Your task to perform on an android device: make emails show in primary in the gmail app Image 0: 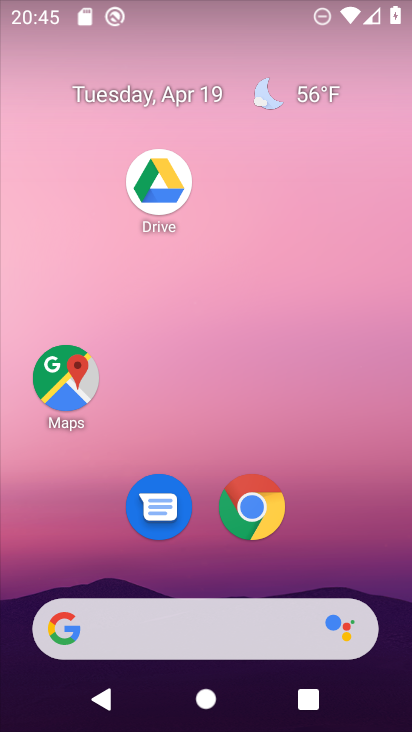
Step 0: drag from (364, 508) to (337, 138)
Your task to perform on an android device: make emails show in primary in the gmail app Image 1: 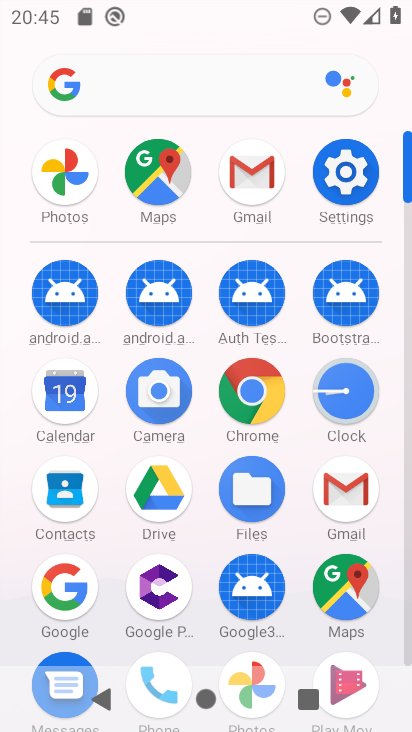
Step 1: click (240, 177)
Your task to perform on an android device: make emails show in primary in the gmail app Image 2: 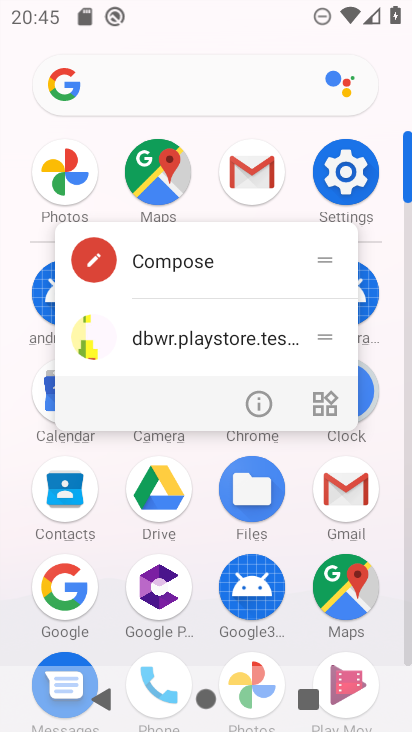
Step 2: click (245, 172)
Your task to perform on an android device: make emails show in primary in the gmail app Image 3: 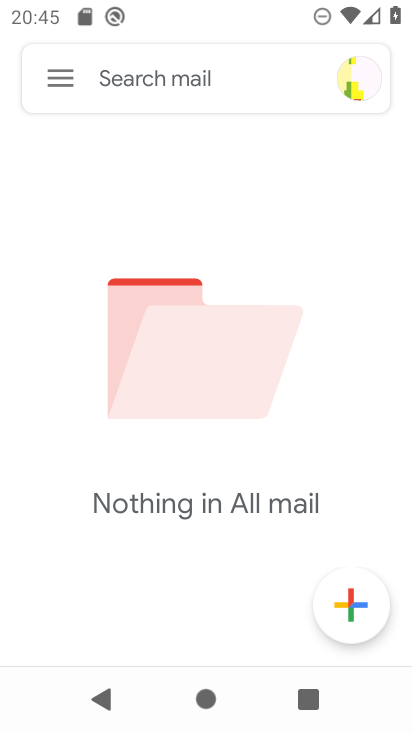
Step 3: click (68, 81)
Your task to perform on an android device: make emails show in primary in the gmail app Image 4: 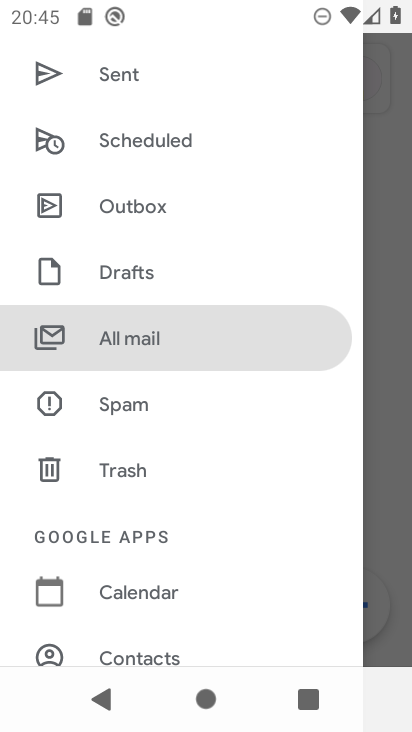
Step 4: drag from (198, 532) to (233, 163)
Your task to perform on an android device: make emails show in primary in the gmail app Image 5: 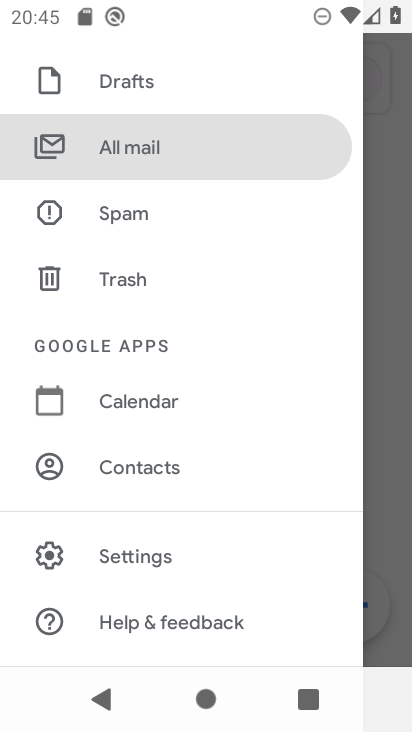
Step 5: click (168, 556)
Your task to perform on an android device: make emails show in primary in the gmail app Image 6: 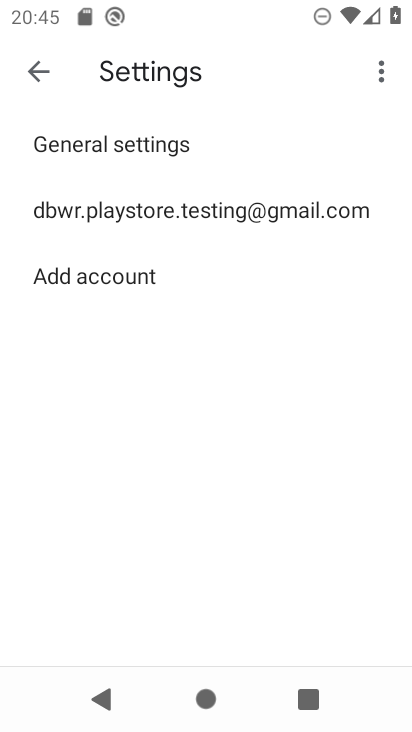
Step 6: click (263, 197)
Your task to perform on an android device: make emails show in primary in the gmail app Image 7: 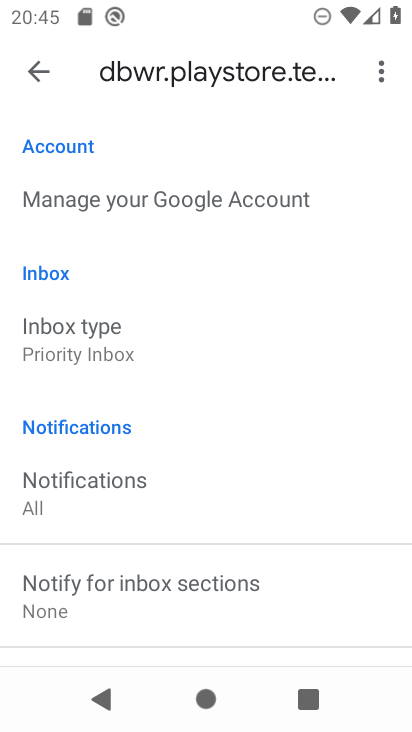
Step 7: click (126, 335)
Your task to perform on an android device: make emails show in primary in the gmail app Image 8: 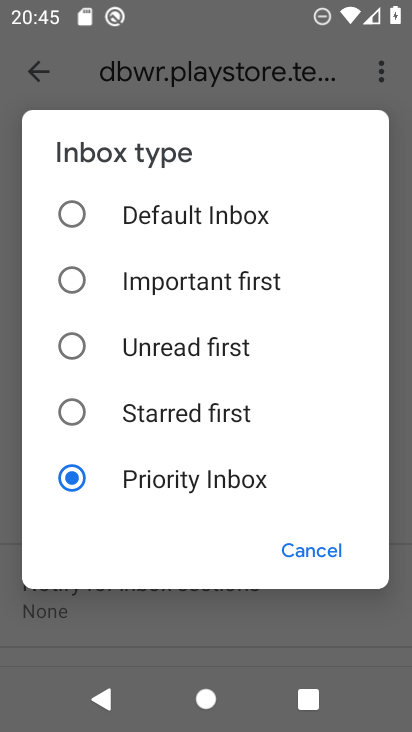
Step 8: click (72, 206)
Your task to perform on an android device: make emails show in primary in the gmail app Image 9: 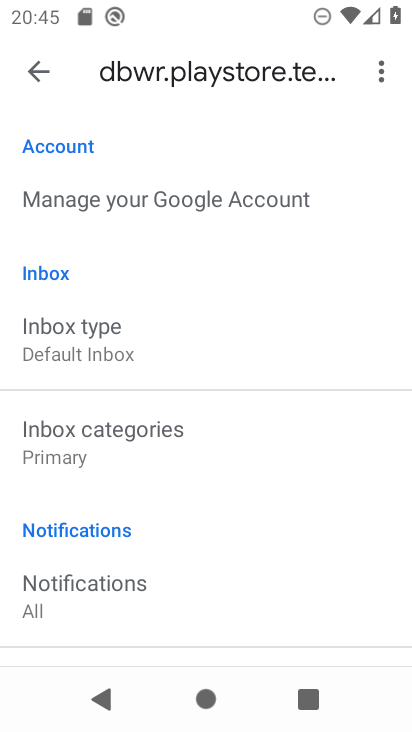
Step 9: task complete